Your task to perform on an android device: turn on translation in the chrome app Image 0: 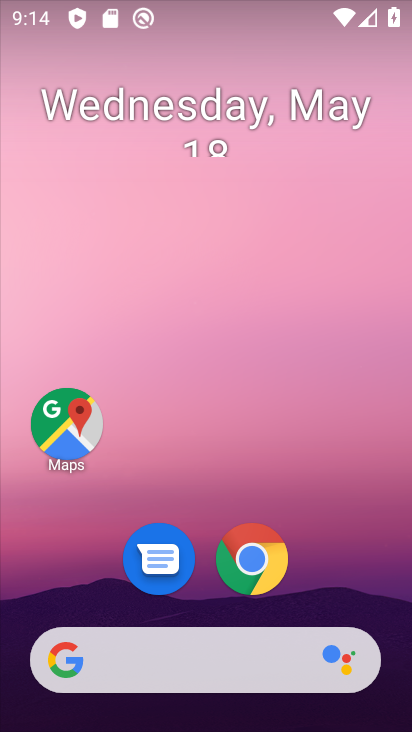
Step 0: click (295, 65)
Your task to perform on an android device: turn on translation in the chrome app Image 1: 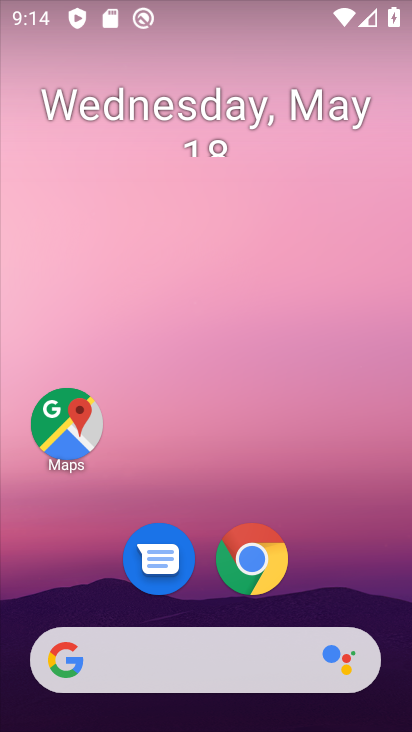
Step 1: drag from (331, 558) to (255, 5)
Your task to perform on an android device: turn on translation in the chrome app Image 2: 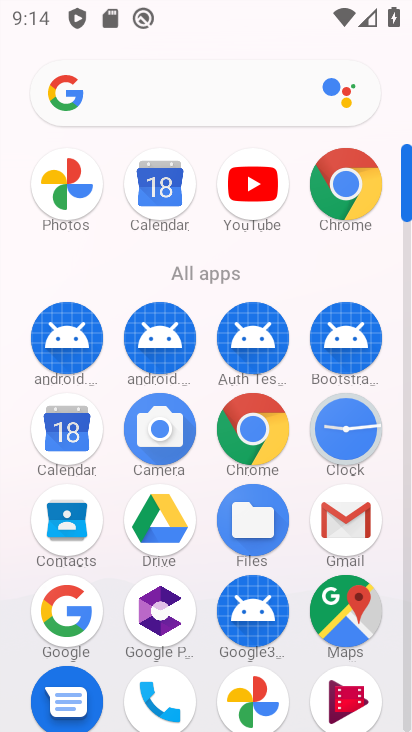
Step 2: drag from (7, 565) to (4, 286)
Your task to perform on an android device: turn on translation in the chrome app Image 3: 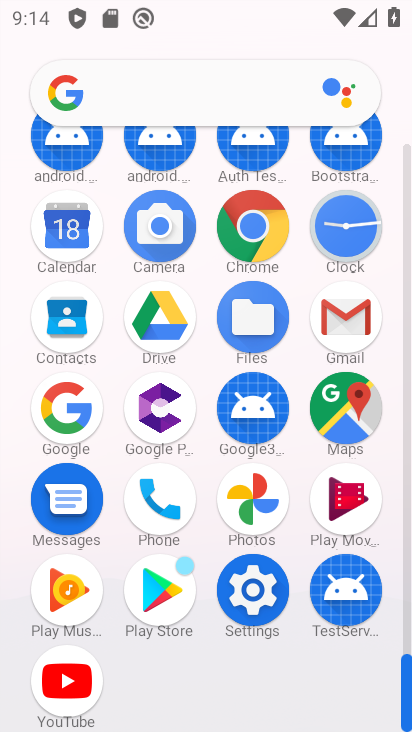
Step 3: click (250, 227)
Your task to perform on an android device: turn on translation in the chrome app Image 4: 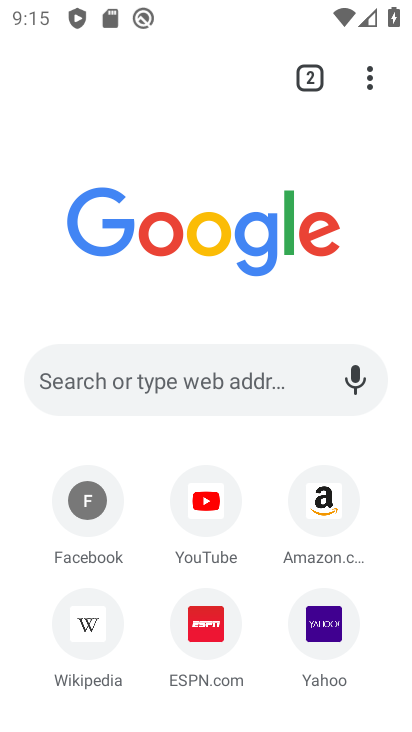
Step 4: drag from (366, 80) to (131, 635)
Your task to perform on an android device: turn on translation in the chrome app Image 5: 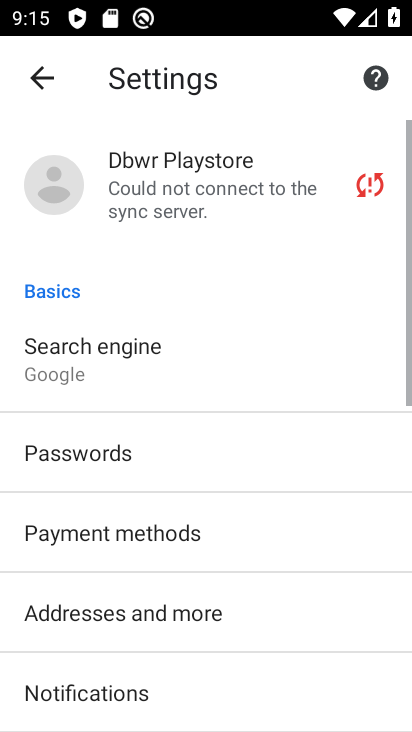
Step 5: drag from (238, 643) to (241, 237)
Your task to perform on an android device: turn on translation in the chrome app Image 6: 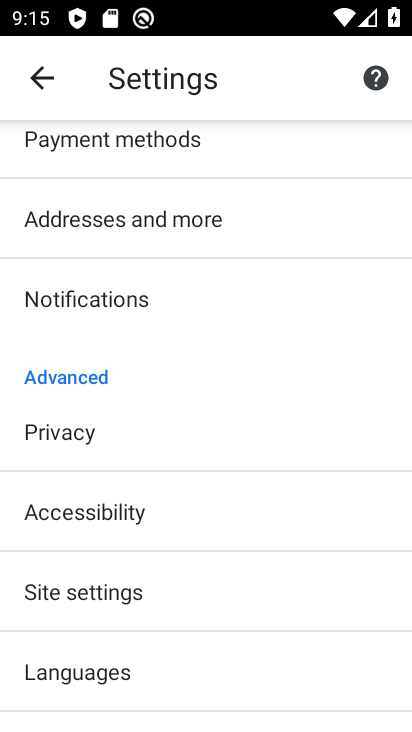
Step 6: click (162, 674)
Your task to perform on an android device: turn on translation in the chrome app Image 7: 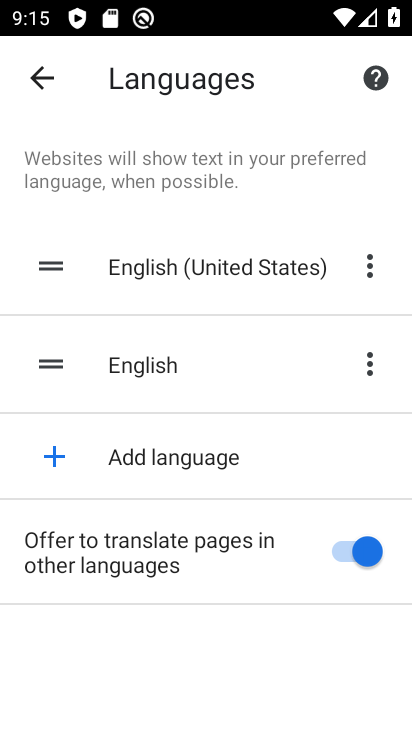
Step 7: task complete